Your task to perform on an android device: Open privacy settings Image 0: 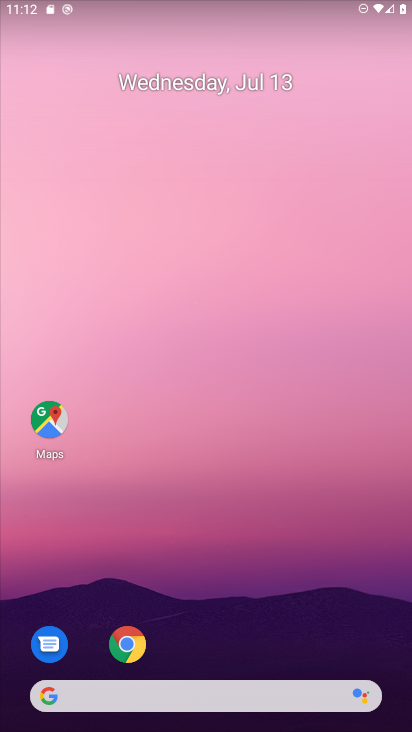
Step 0: drag from (225, 600) to (203, 62)
Your task to perform on an android device: Open privacy settings Image 1: 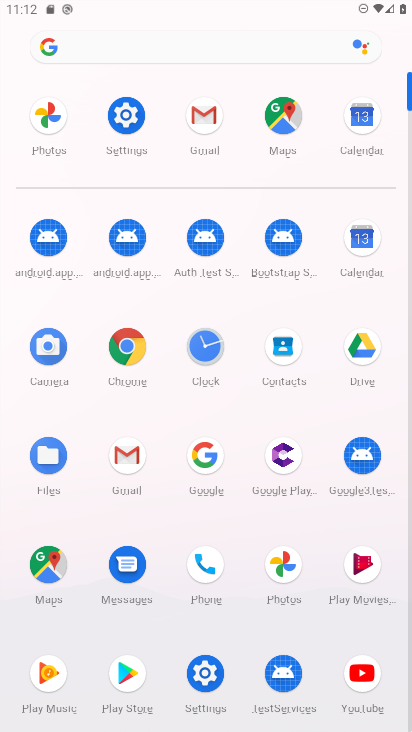
Step 1: click (117, 107)
Your task to perform on an android device: Open privacy settings Image 2: 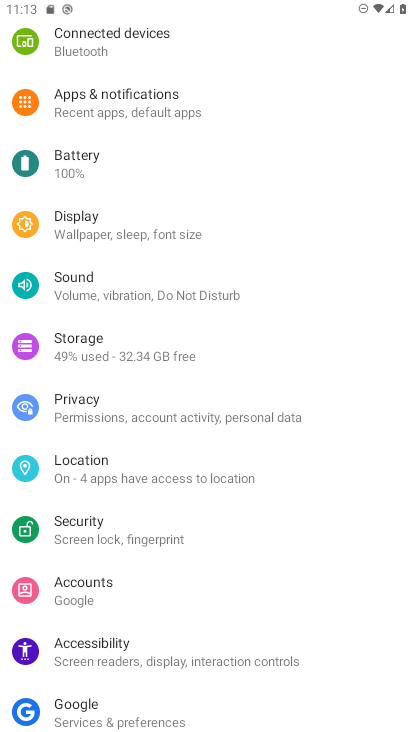
Step 2: click (83, 400)
Your task to perform on an android device: Open privacy settings Image 3: 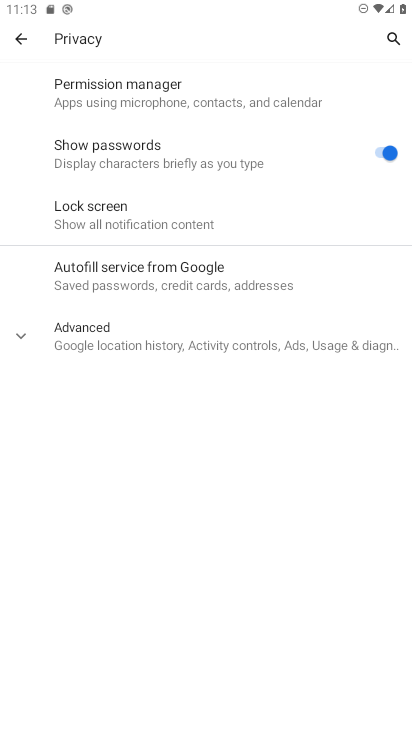
Step 3: task complete